Your task to perform on an android device: turn off improve location accuracy Image 0: 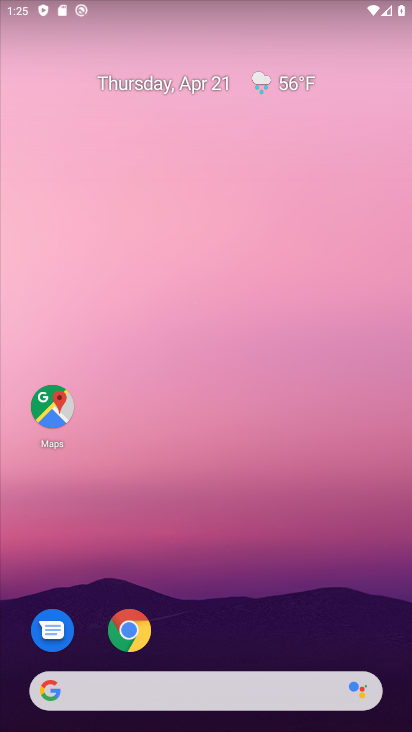
Step 0: drag from (261, 643) to (244, 52)
Your task to perform on an android device: turn off improve location accuracy Image 1: 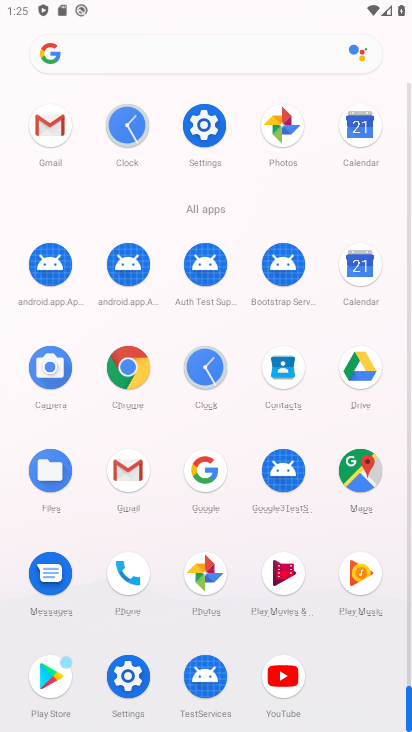
Step 1: drag from (345, 687) to (330, 302)
Your task to perform on an android device: turn off improve location accuracy Image 2: 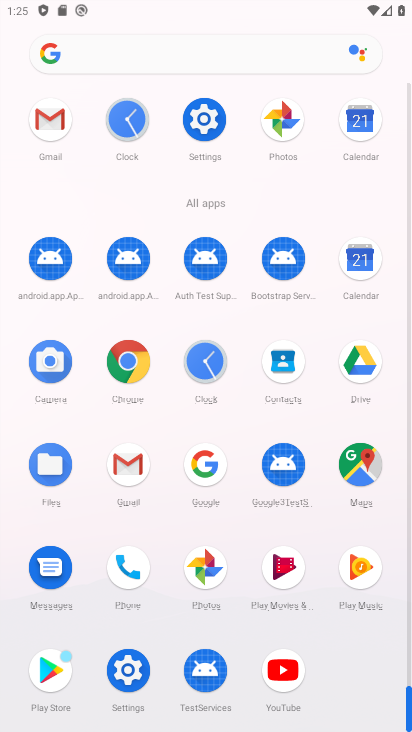
Step 2: click (125, 672)
Your task to perform on an android device: turn off improve location accuracy Image 3: 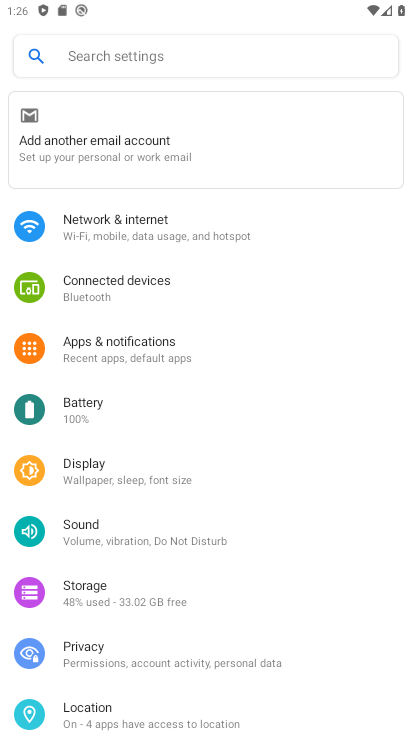
Step 3: drag from (174, 626) to (160, 379)
Your task to perform on an android device: turn off improve location accuracy Image 4: 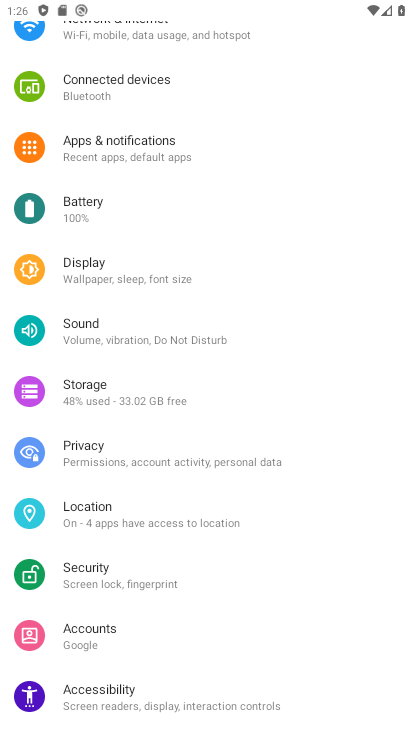
Step 4: click (102, 519)
Your task to perform on an android device: turn off improve location accuracy Image 5: 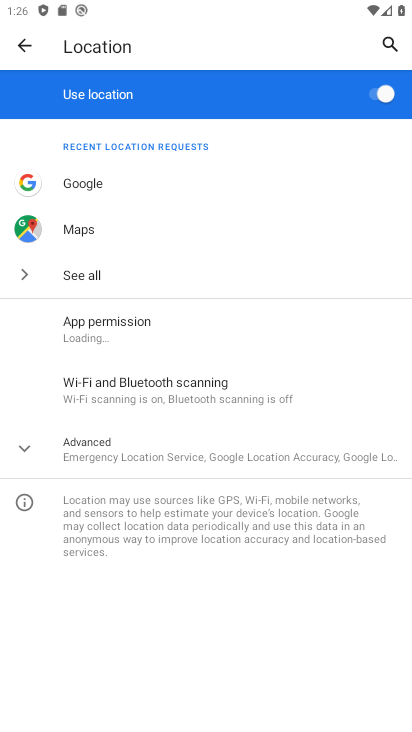
Step 5: click (129, 462)
Your task to perform on an android device: turn off improve location accuracy Image 6: 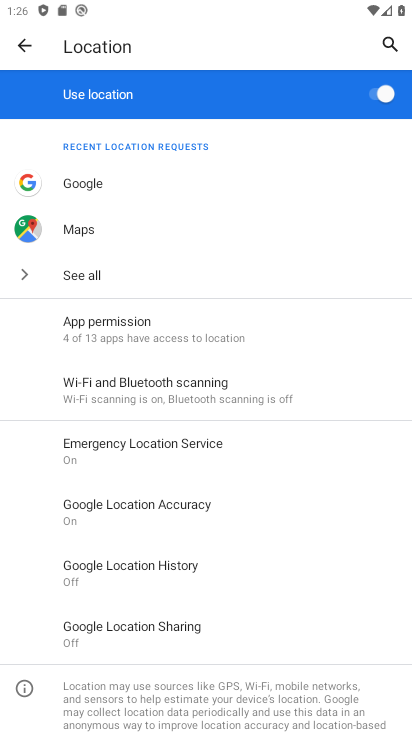
Step 6: click (166, 509)
Your task to perform on an android device: turn off improve location accuracy Image 7: 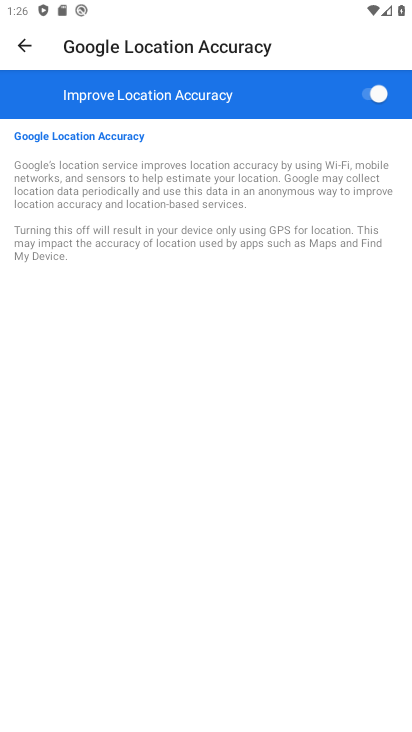
Step 7: click (365, 93)
Your task to perform on an android device: turn off improve location accuracy Image 8: 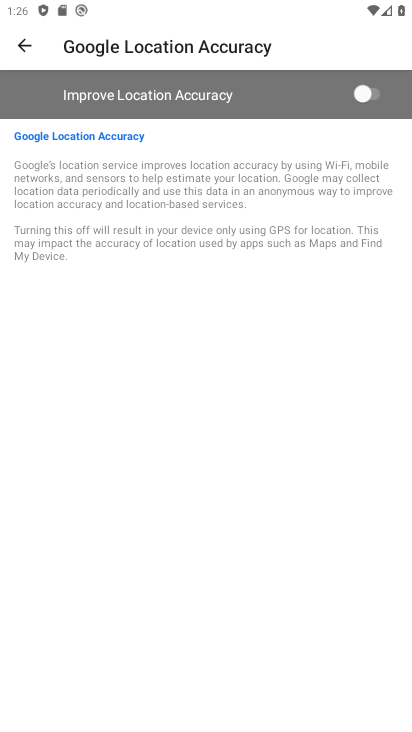
Step 8: task complete